Your task to perform on an android device: toggle improve location accuracy Image 0: 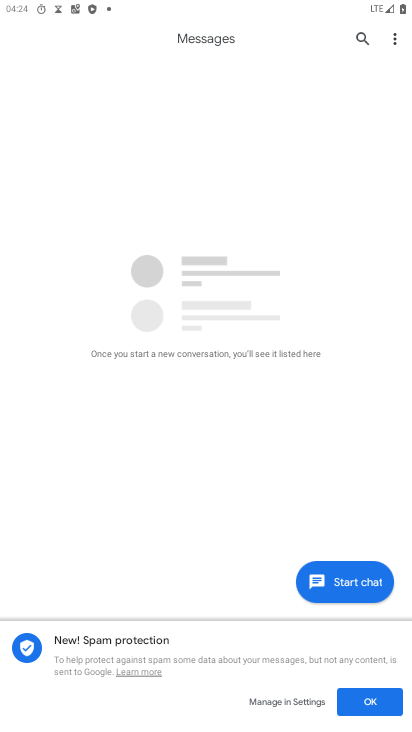
Step 0: press home button
Your task to perform on an android device: toggle improve location accuracy Image 1: 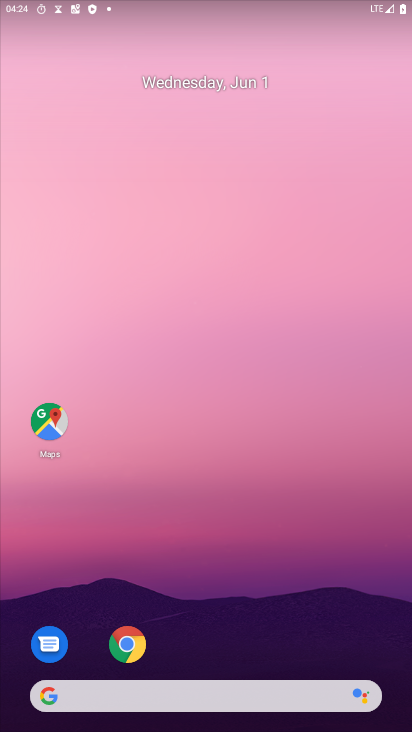
Step 1: drag from (282, 639) to (259, 276)
Your task to perform on an android device: toggle improve location accuracy Image 2: 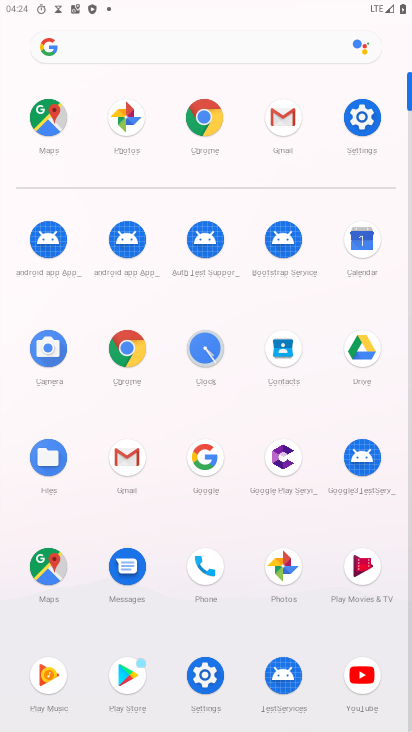
Step 2: click (361, 120)
Your task to perform on an android device: toggle improve location accuracy Image 3: 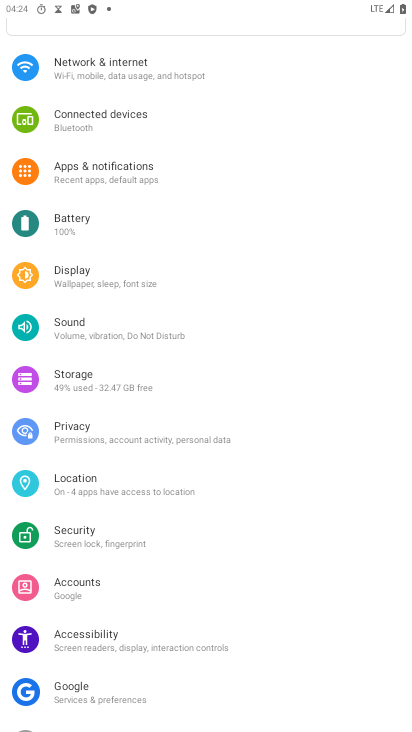
Step 3: click (83, 487)
Your task to perform on an android device: toggle improve location accuracy Image 4: 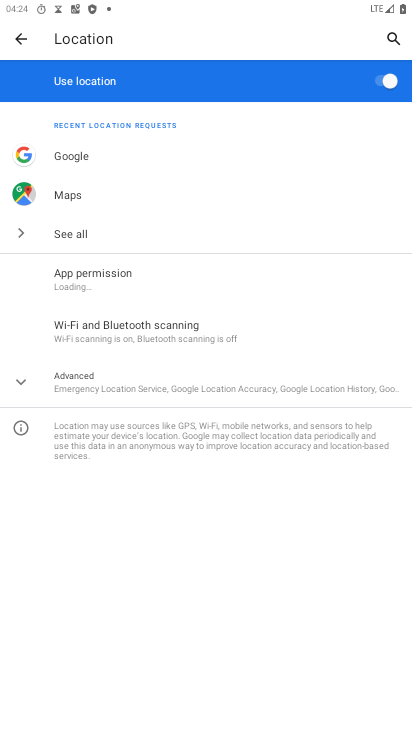
Step 4: click (71, 386)
Your task to perform on an android device: toggle improve location accuracy Image 5: 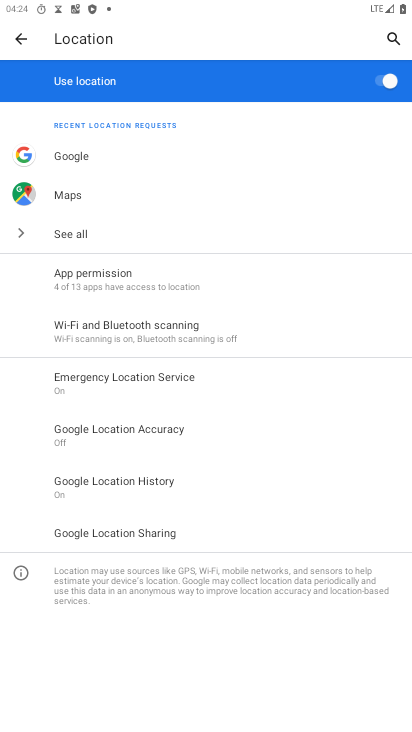
Step 5: click (153, 430)
Your task to perform on an android device: toggle improve location accuracy Image 6: 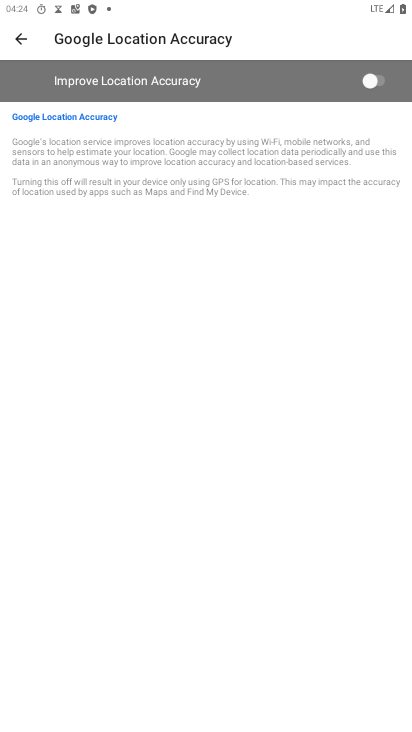
Step 6: click (373, 77)
Your task to perform on an android device: toggle improve location accuracy Image 7: 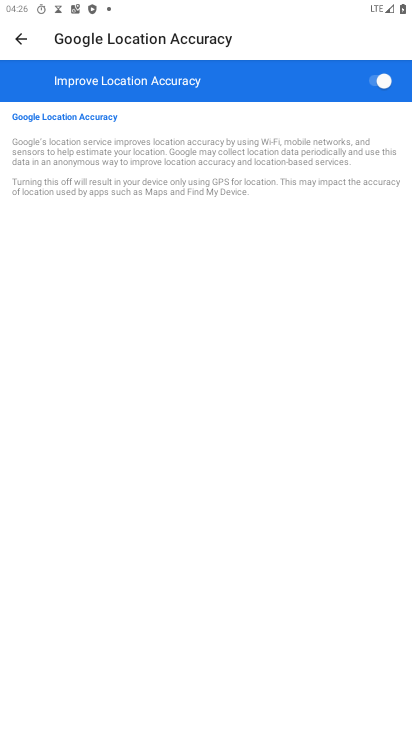
Step 7: task complete